Your task to perform on an android device: uninstall "Indeed Job Search" Image 0: 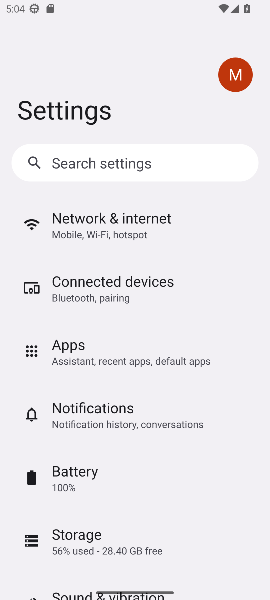
Step 0: press home button
Your task to perform on an android device: uninstall "Indeed Job Search" Image 1: 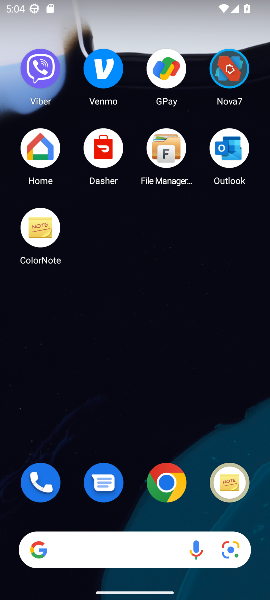
Step 1: press home button
Your task to perform on an android device: uninstall "Indeed Job Search" Image 2: 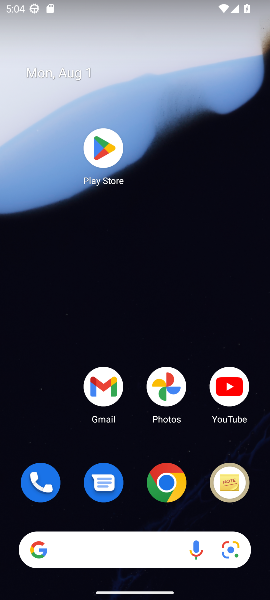
Step 2: click (107, 156)
Your task to perform on an android device: uninstall "Indeed Job Search" Image 3: 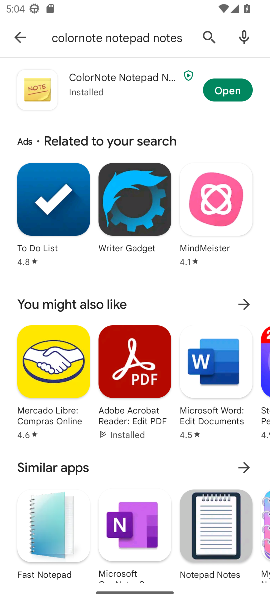
Step 3: click (204, 32)
Your task to perform on an android device: uninstall "Indeed Job Search" Image 4: 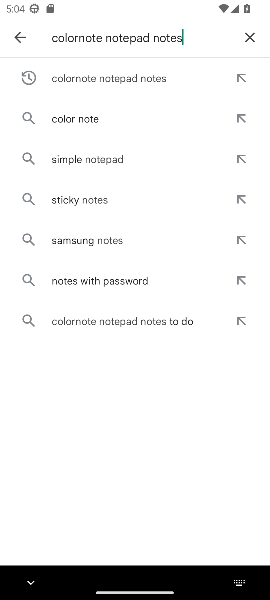
Step 4: click (250, 37)
Your task to perform on an android device: uninstall "Indeed Job Search" Image 5: 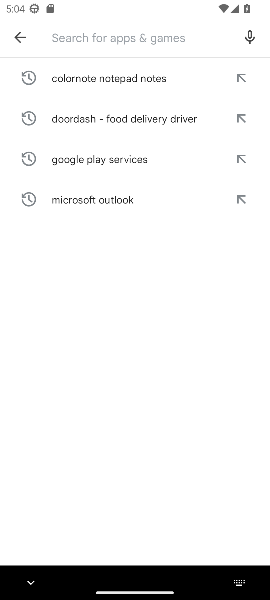
Step 5: type "Indeed Job Search"
Your task to perform on an android device: uninstall "Indeed Job Search" Image 6: 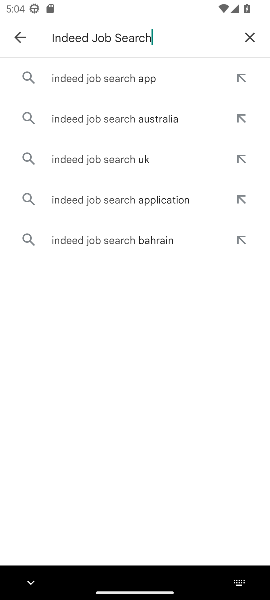
Step 6: click (80, 79)
Your task to perform on an android device: uninstall "Indeed Job Search" Image 7: 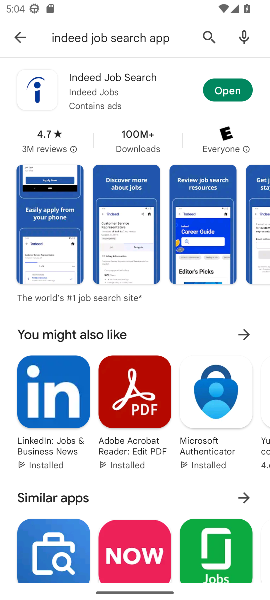
Step 7: click (53, 98)
Your task to perform on an android device: uninstall "Indeed Job Search" Image 8: 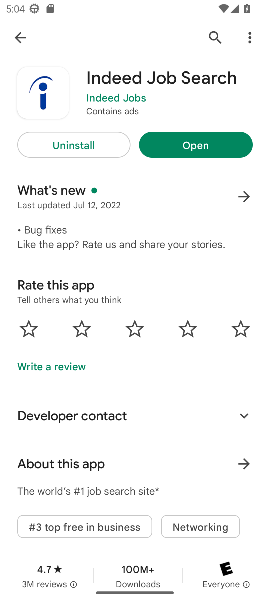
Step 8: click (99, 144)
Your task to perform on an android device: uninstall "Indeed Job Search" Image 9: 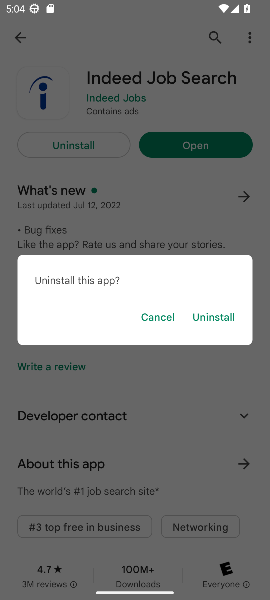
Step 9: click (215, 314)
Your task to perform on an android device: uninstall "Indeed Job Search" Image 10: 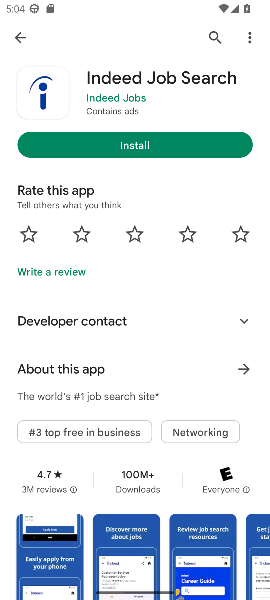
Step 10: task complete